Your task to perform on an android device: open app "HBO Max: Stream TV & Movies" (install if not already installed) and go to login screen Image 0: 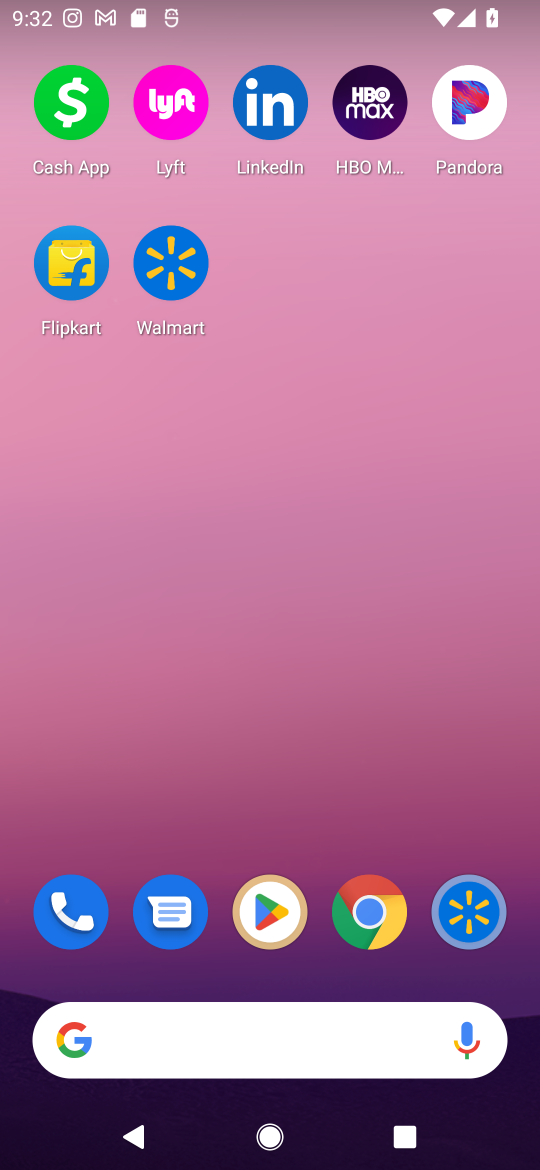
Step 0: click (279, 898)
Your task to perform on an android device: open app "HBO Max: Stream TV & Movies" (install if not already installed) and go to login screen Image 1: 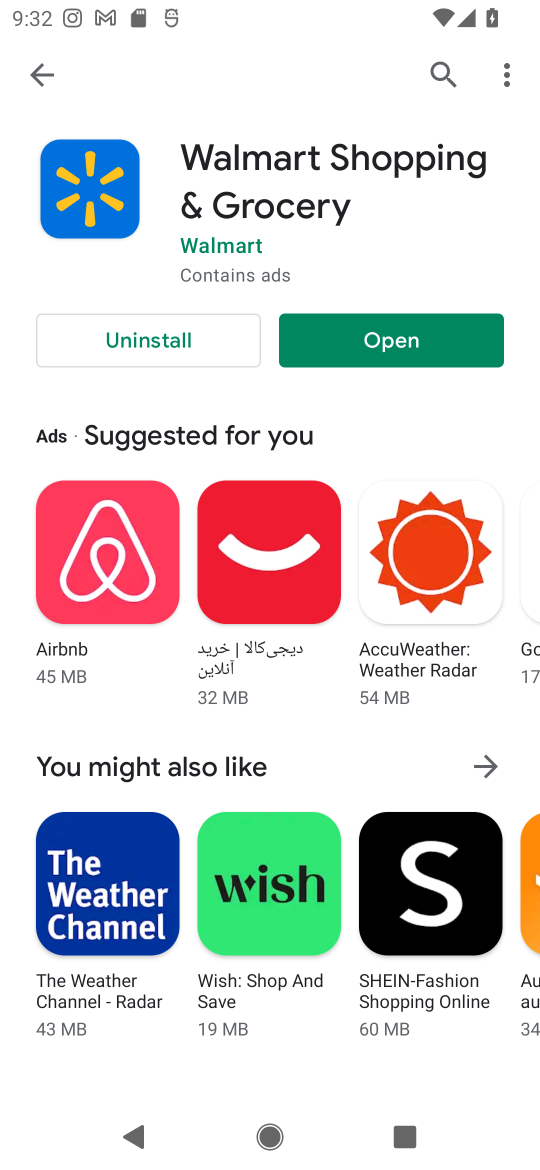
Step 1: click (444, 66)
Your task to perform on an android device: open app "HBO Max: Stream TV & Movies" (install if not already installed) and go to login screen Image 2: 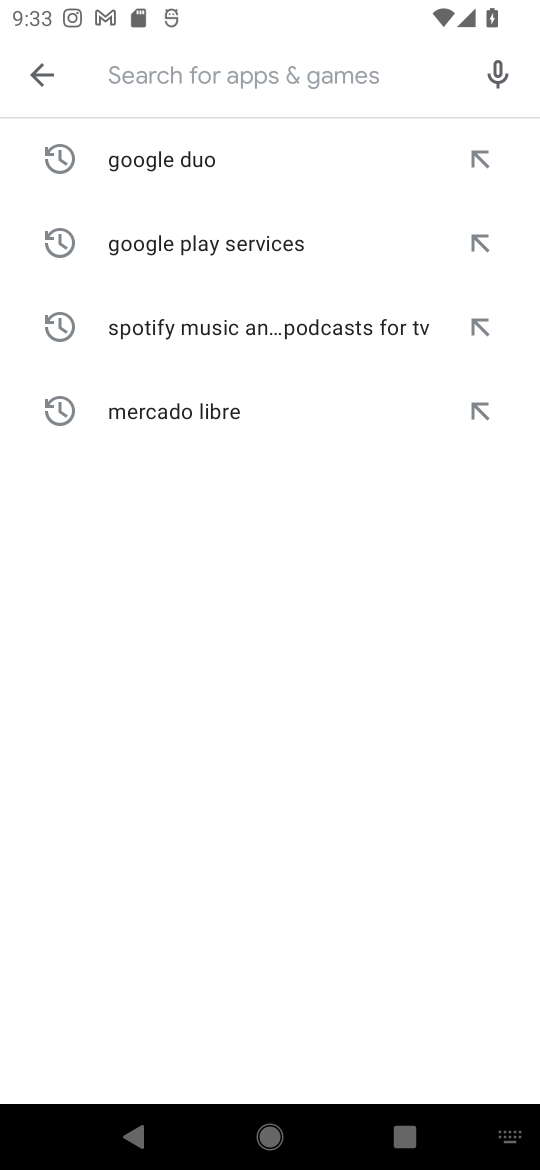
Step 2: type "HBO Max: Stream TV & Movies"
Your task to perform on an android device: open app "HBO Max: Stream TV & Movies" (install if not already installed) and go to login screen Image 3: 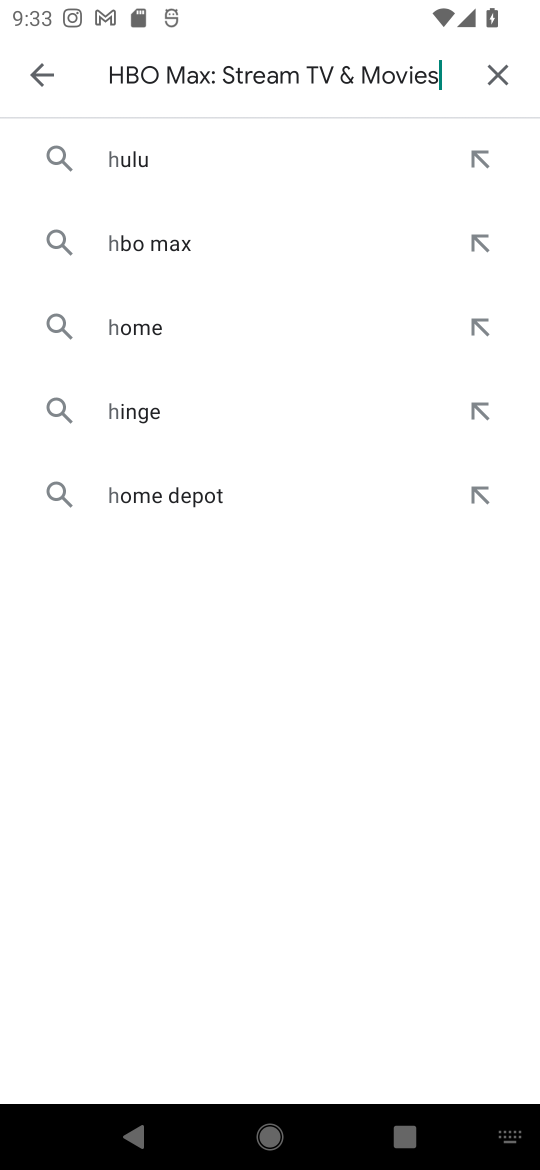
Step 3: type ""
Your task to perform on an android device: open app "HBO Max: Stream TV & Movies" (install if not already installed) and go to login screen Image 4: 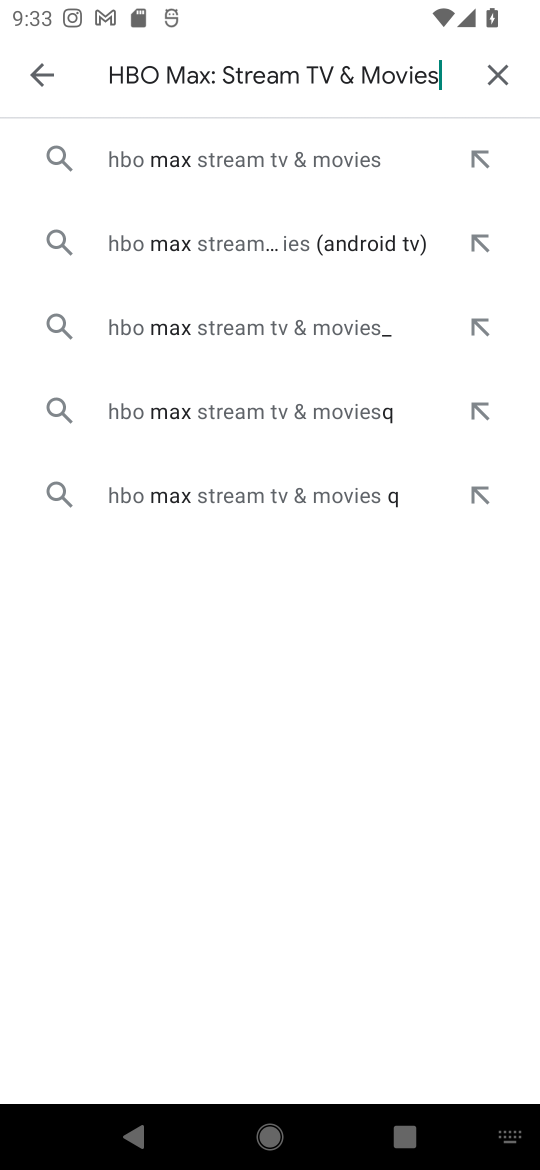
Step 4: click (301, 158)
Your task to perform on an android device: open app "HBO Max: Stream TV & Movies" (install if not already installed) and go to login screen Image 5: 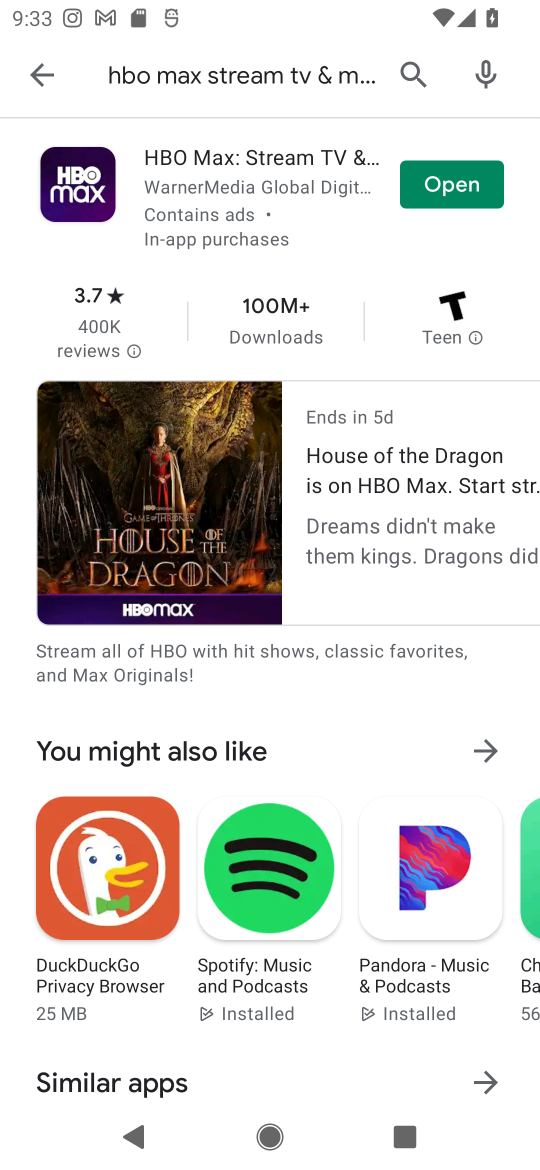
Step 5: click (474, 183)
Your task to perform on an android device: open app "HBO Max: Stream TV & Movies" (install if not already installed) and go to login screen Image 6: 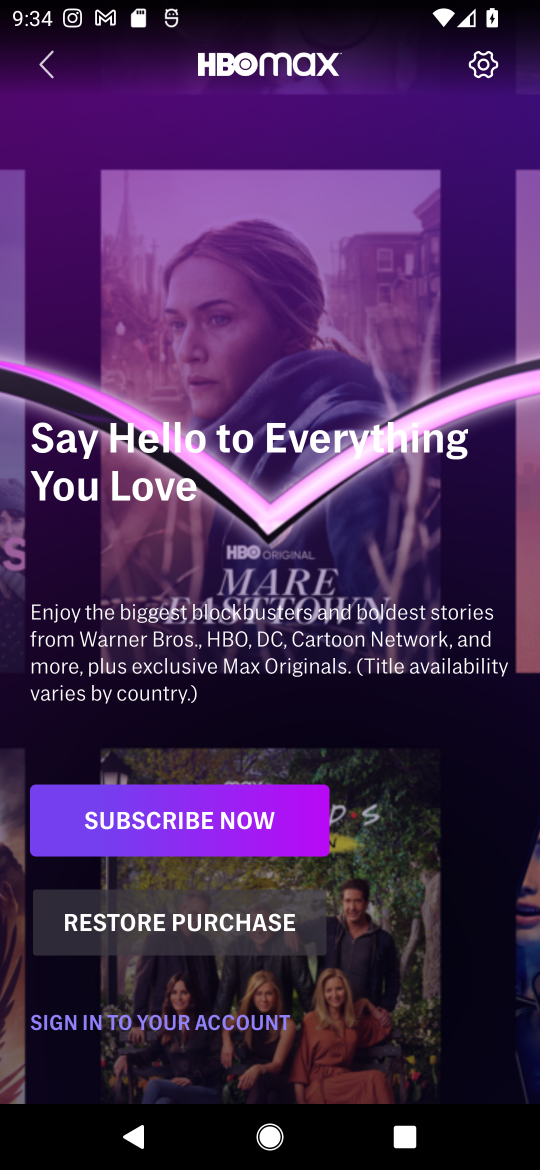
Step 6: task complete